Your task to perform on an android device: change notification settings in the gmail app Image 0: 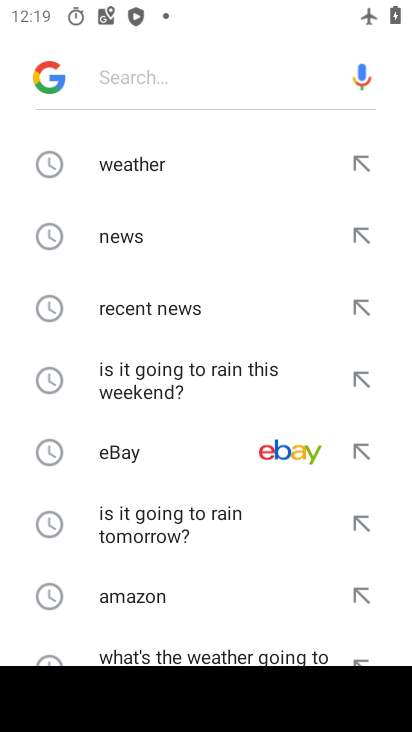
Step 0: press home button
Your task to perform on an android device: change notification settings in the gmail app Image 1: 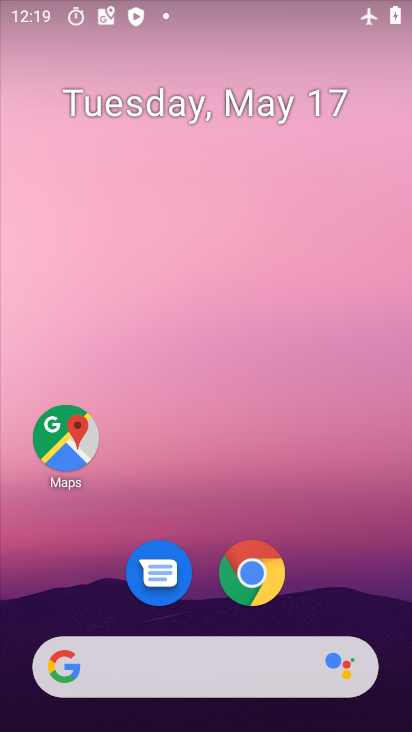
Step 1: drag from (234, 705) to (297, 230)
Your task to perform on an android device: change notification settings in the gmail app Image 2: 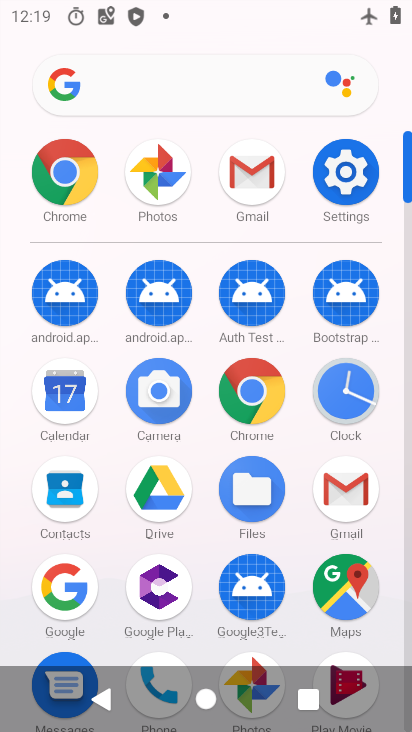
Step 2: click (354, 484)
Your task to perform on an android device: change notification settings in the gmail app Image 3: 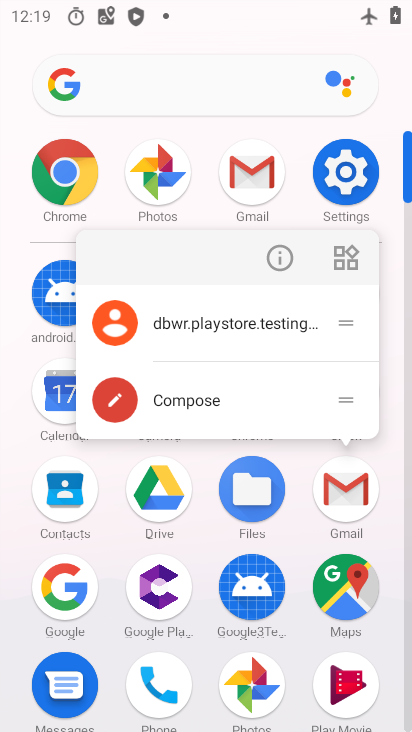
Step 3: click (284, 257)
Your task to perform on an android device: change notification settings in the gmail app Image 4: 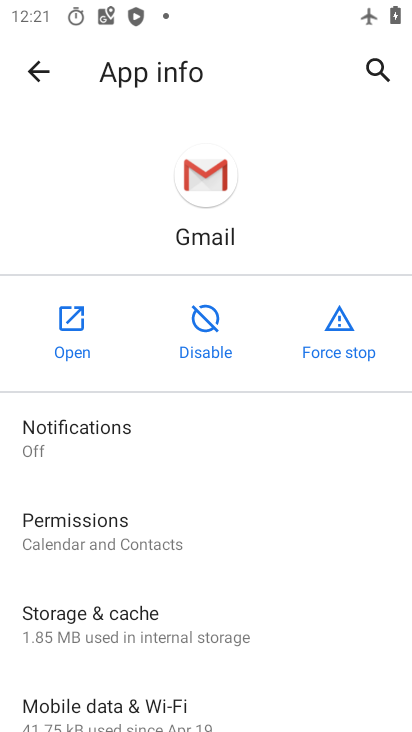
Step 4: click (172, 439)
Your task to perform on an android device: change notification settings in the gmail app Image 5: 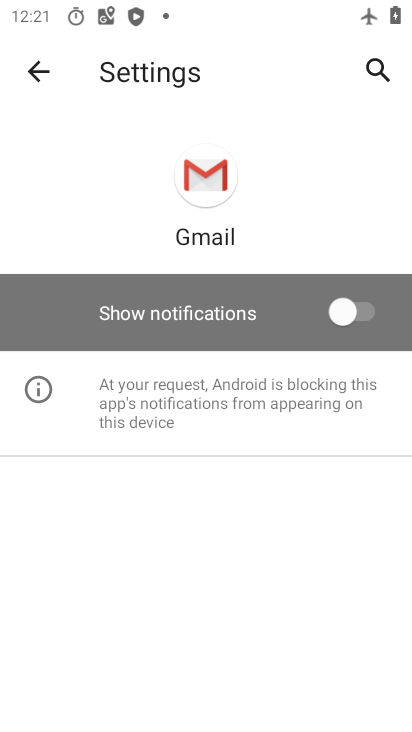
Step 5: click (363, 314)
Your task to perform on an android device: change notification settings in the gmail app Image 6: 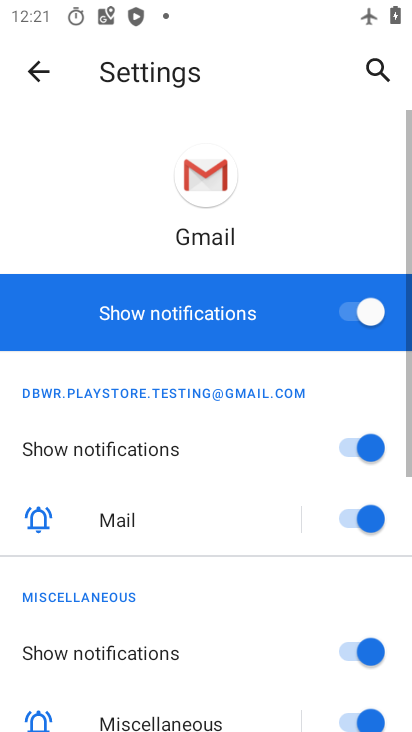
Step 6: task complete